Your task to perform on an android device: change notifications settings Image 0: 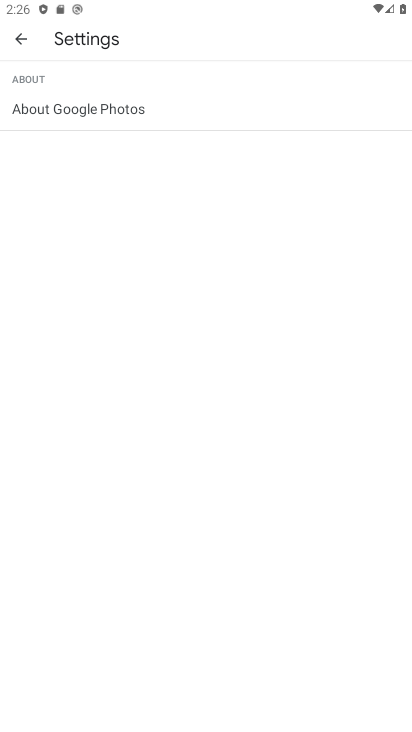
Step 0: press home button
Your task to perform on an android device: change notifications settings Image 1: 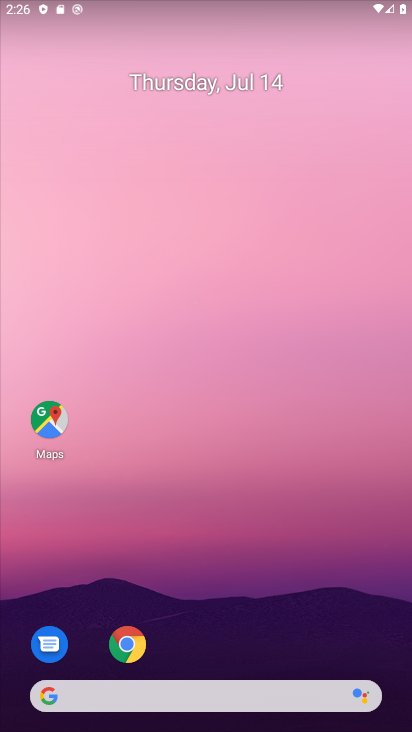
Step 1: drag from (277, 651) to (143, 103)
Your task to perform on an android device: change notifications settings Image 2: 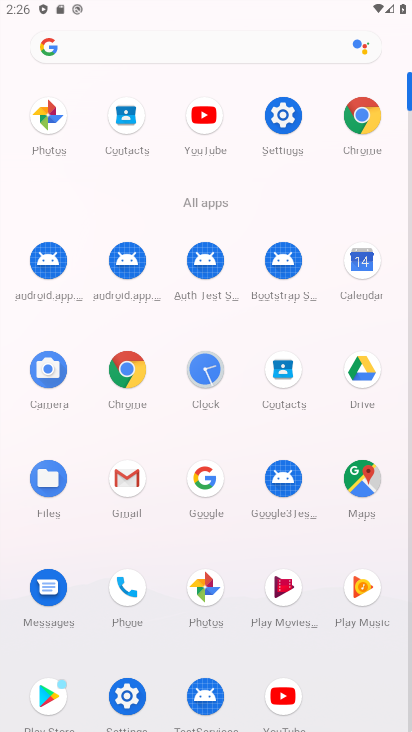
Step 2: click (275, 117)
Your task to perform on an android device: change notifications settings Image 3: 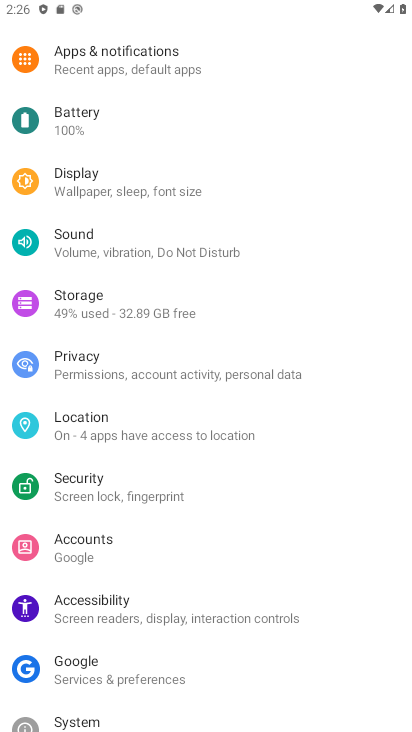
Step 3: click (157, 70)
Your task to perform on an android device: change notifications settings Image 4: 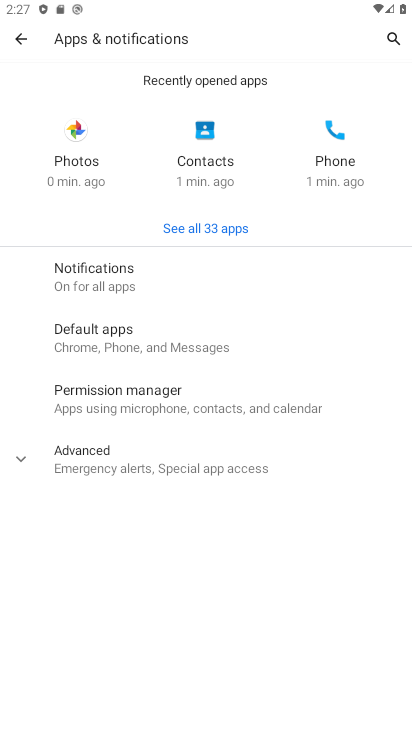
Step 4: click (198, 293)
Your task to perform on an android device: change notifications settings Image 5: 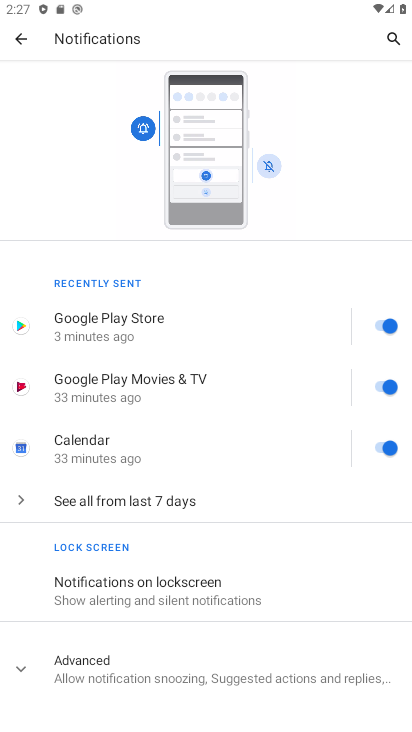
Step 5: task complete